Your task to perform on an android device: change timer sound Image 0: 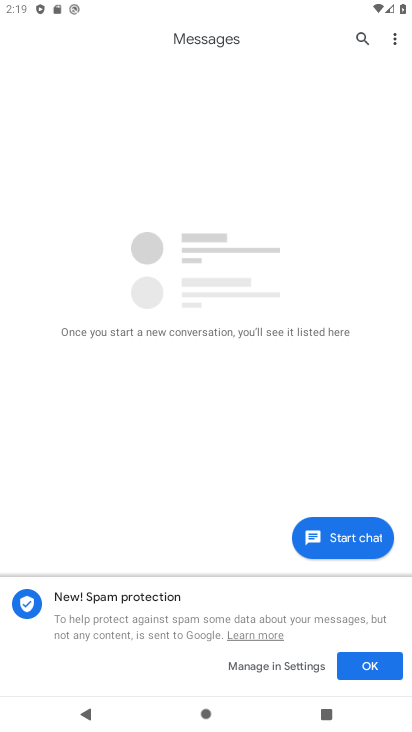
Step 0: press home button
Your task to perform on an android device: change timer sound Image 1: 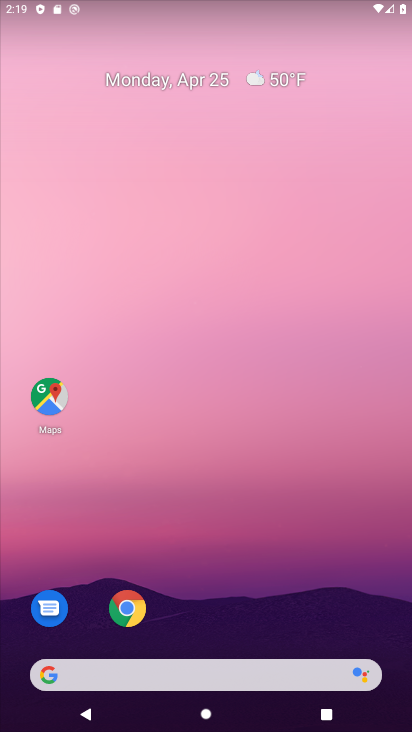
Step 1: drag from (197, 609) to (237, 104)
Your task to perform on an android device: change timer sound Image 2: 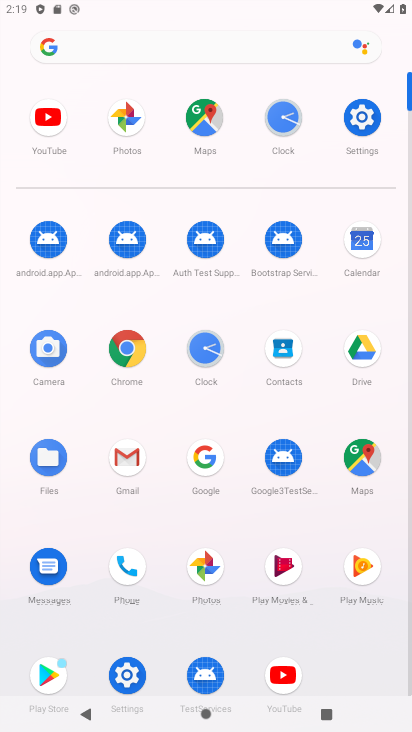
Step 2: click (294, 124)
Your task to perform on an android device: change timer sound Image 3: 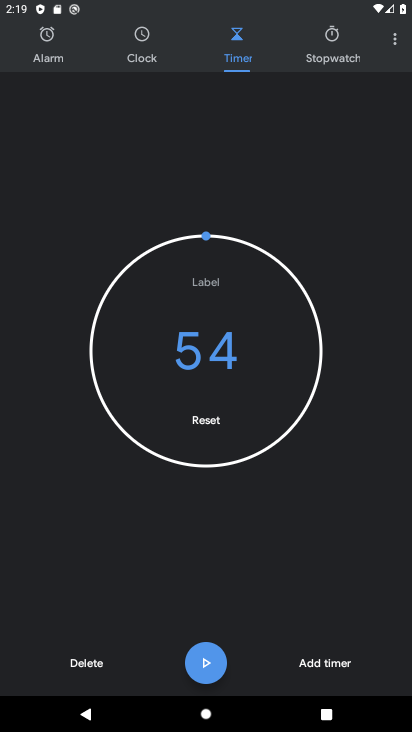
Step 3: click (394, 37)
Your task to perform on an android device: change timer sound Image 4: 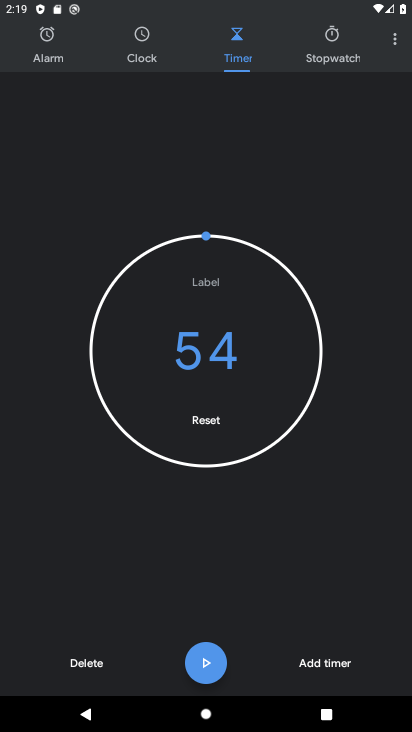
Step 4: click (390, 51)
Your task to perform on an android device: change timer sound Image 5: 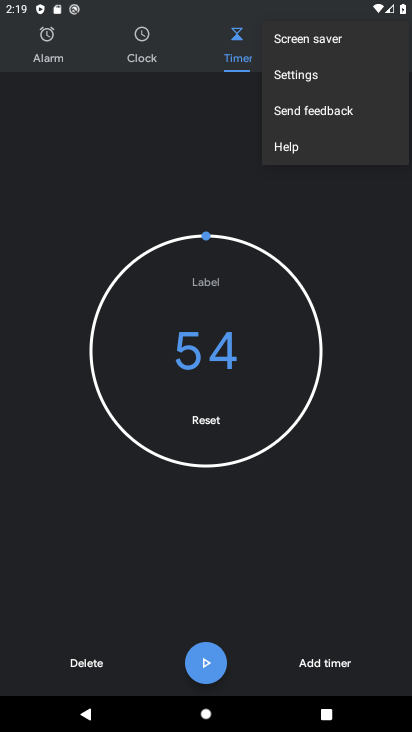
Step 5: click (348, 76)
Your task to perform on an android device: change timer sound Image 6: 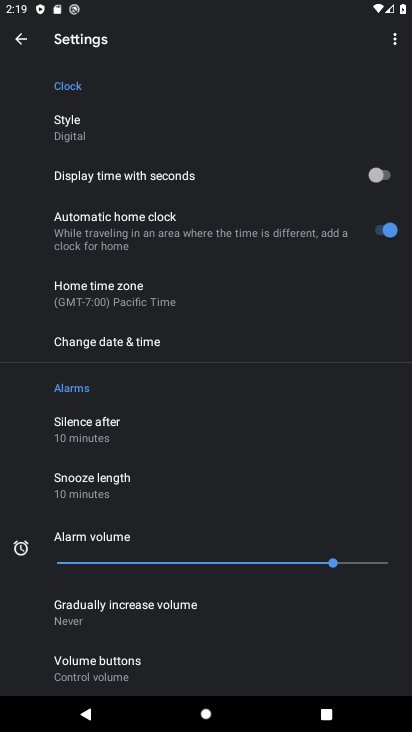
Step 6: drag from (183, 617) to (248, 229)
Your task to perform on an android device: change timer sound Image 7: 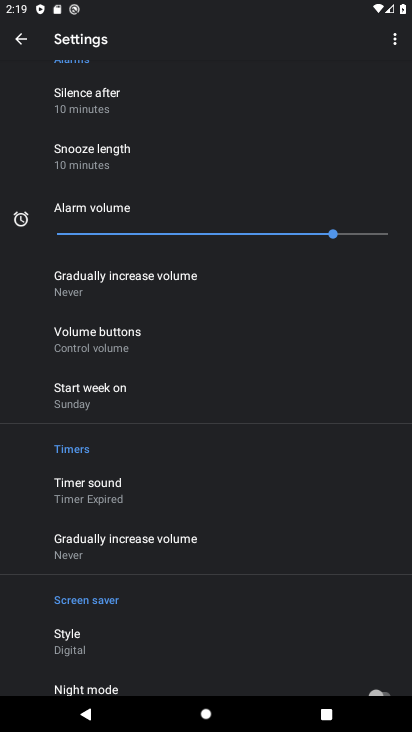
Step 7: click (124, 503)
Your task to perform on an android device: change timer sound Image 8: 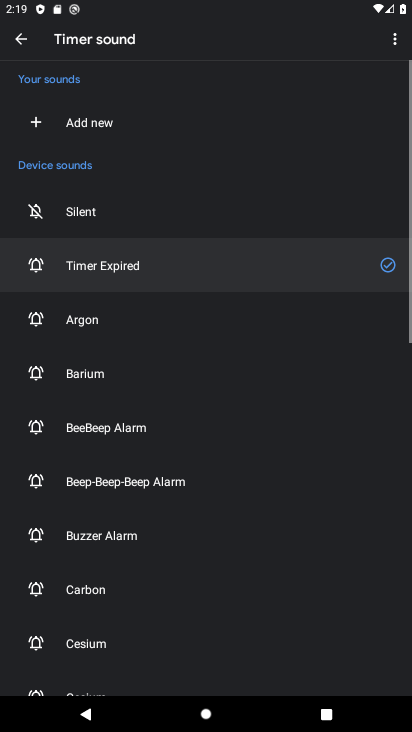
Step 8: click (150, 383)
Your task to perform on an android device: change timer sound Image 9: 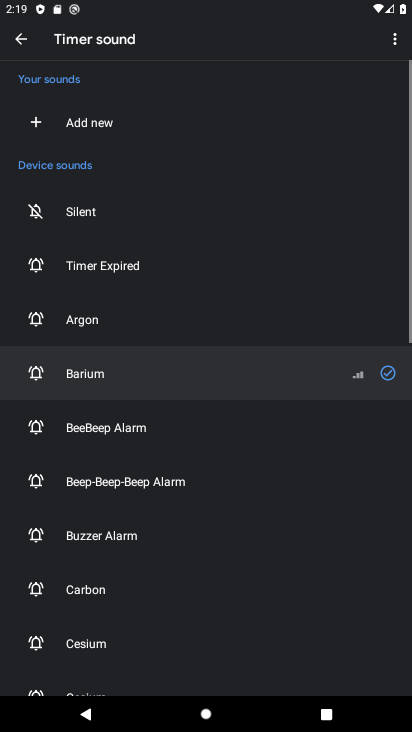
Step 9: task complete